Your task to perform on an android device: turn off airplane mode Image 0: 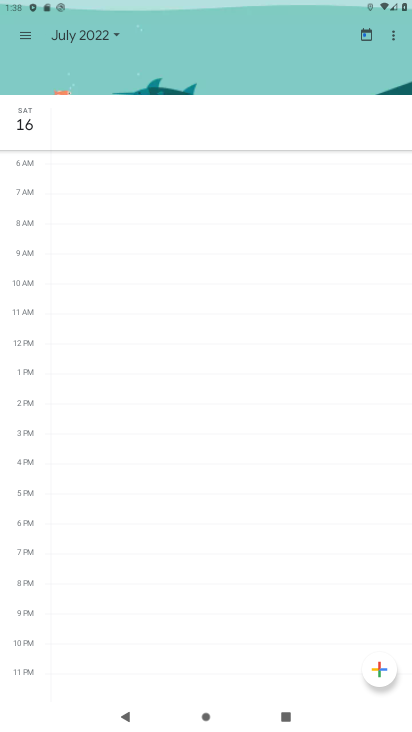
Step 0: press back button
Your task to perform on an android device: turn off airplane mode Image 1: 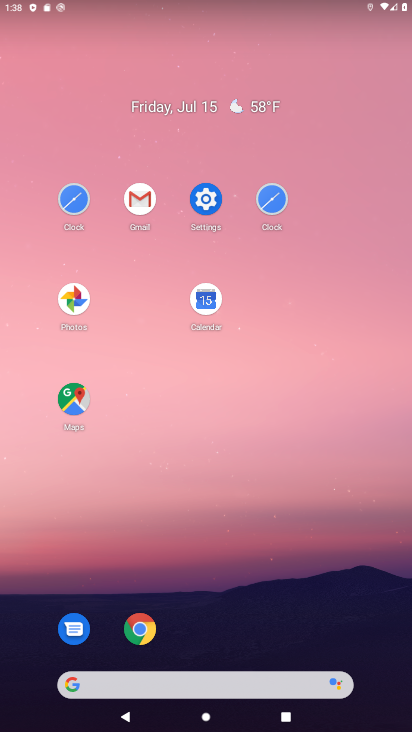
Step 1: click (215, 199)
Your task to perform on an android device: turn off airplane mode Image 2: 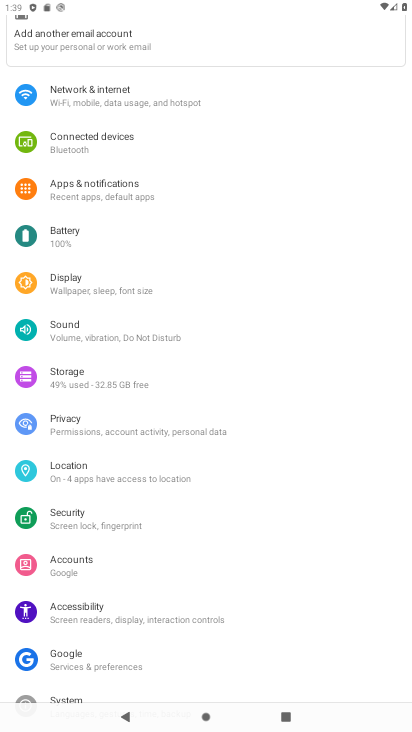
Step 2: click (148, 97)
Your task to perform on an android device: turn off airplane mode Image 3: 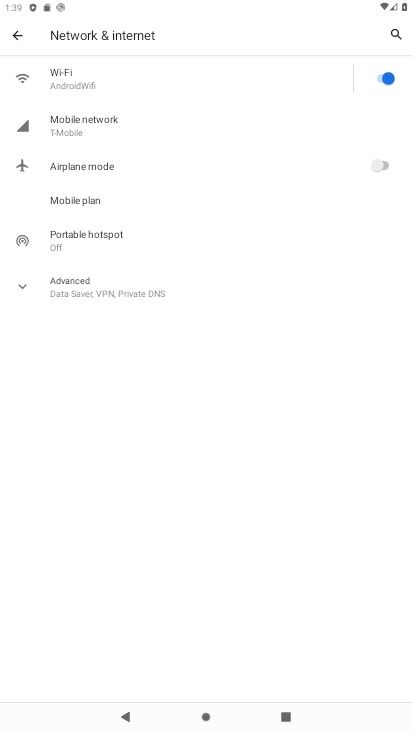
Step 3: task complete